Your task to perform on an android device: What's on my calendar today? Image 0: 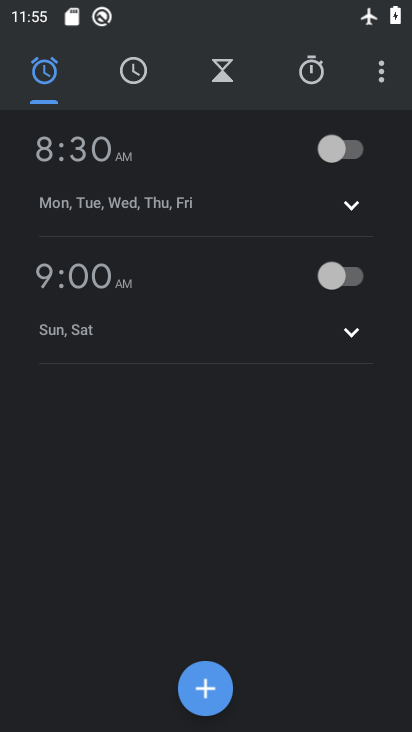
Step 0: press home button
Your task to perform on an android device: What's on my calendar today? Image 1: 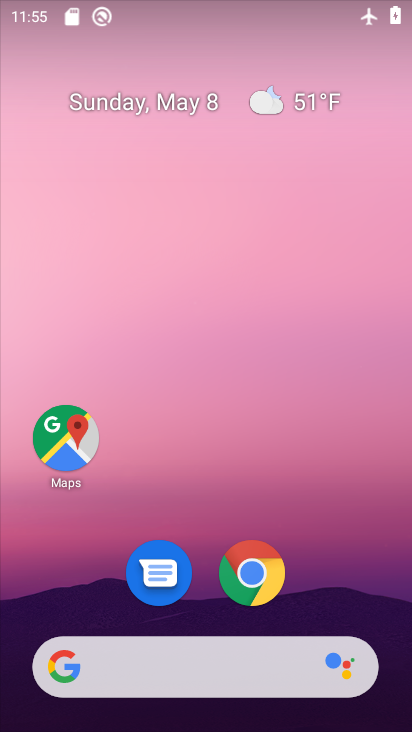
Step 1: drag from (178, 640) to (232, 233)
Your task to perform on an android device: What's on my calendar today? Image 2: 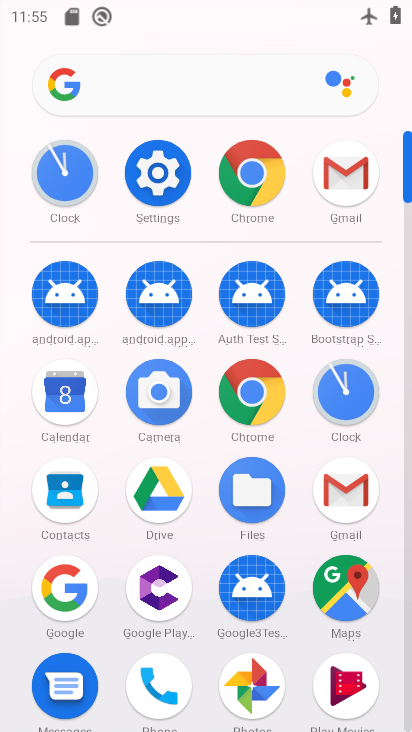
Step 2: click (49, 411)
Your task to perform on an android device: What's on my calendar today? Image 3: 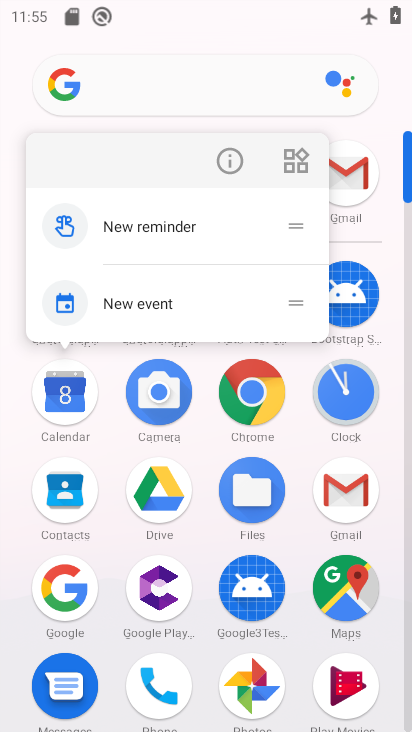
Step 3: click (49, 412)
Your task to perform on an android device: What's on my calendar today? Image 4: 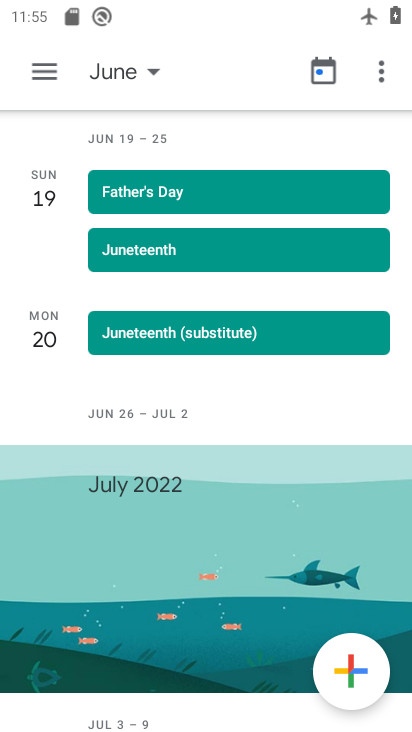
Step 4: click (120, 68)
Your task to perform on an android device: What's on my calendar today? Image 5: 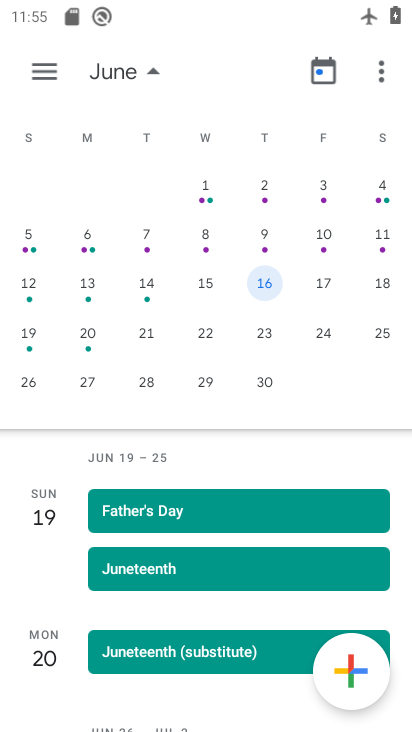
Step 5: drag from (32, 297) to (396, 305)
Your task to perform on an android device: What's on my calendar today? Image 6: 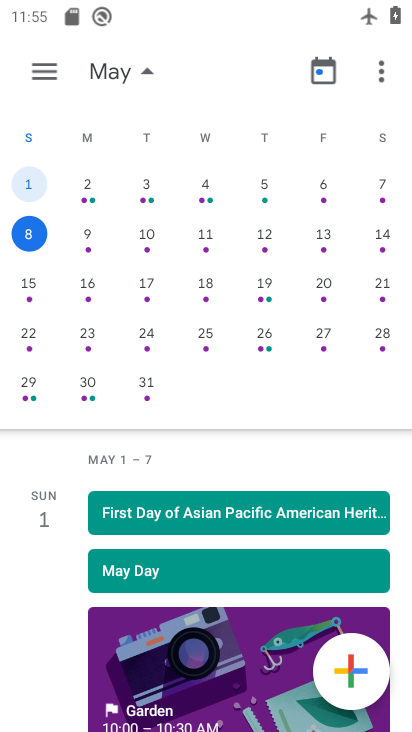
Step 6: click (33, 238)
Your task to perform on an android device: What's on my calendar today? Image 7: 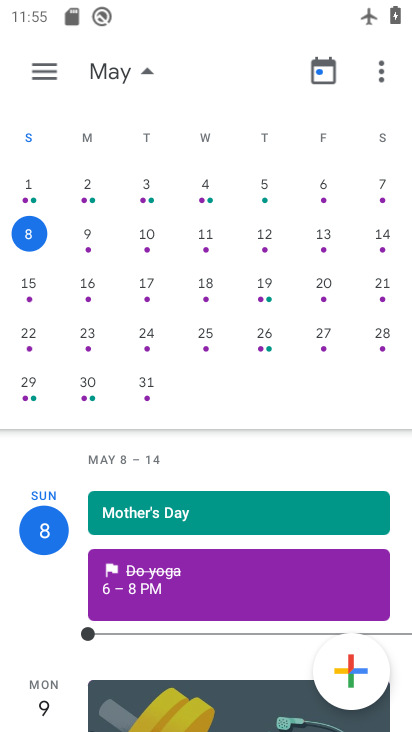
Step 7: task complete